Your task to perform on an android device: Open eBay Image 0: 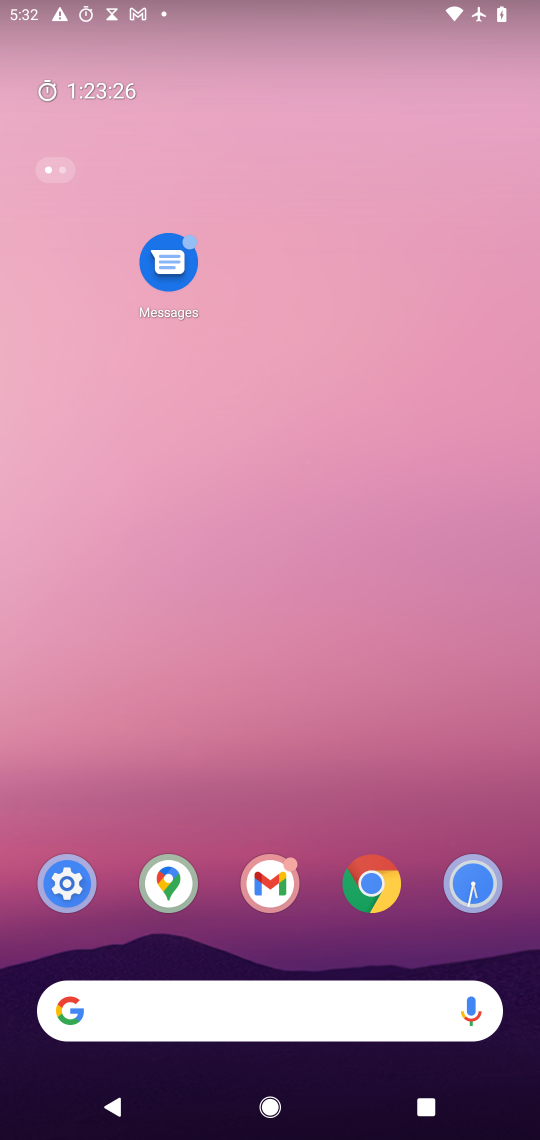
Step 0: click (376, 885)
Your task to perform on an android device: Open eBay Image 1: 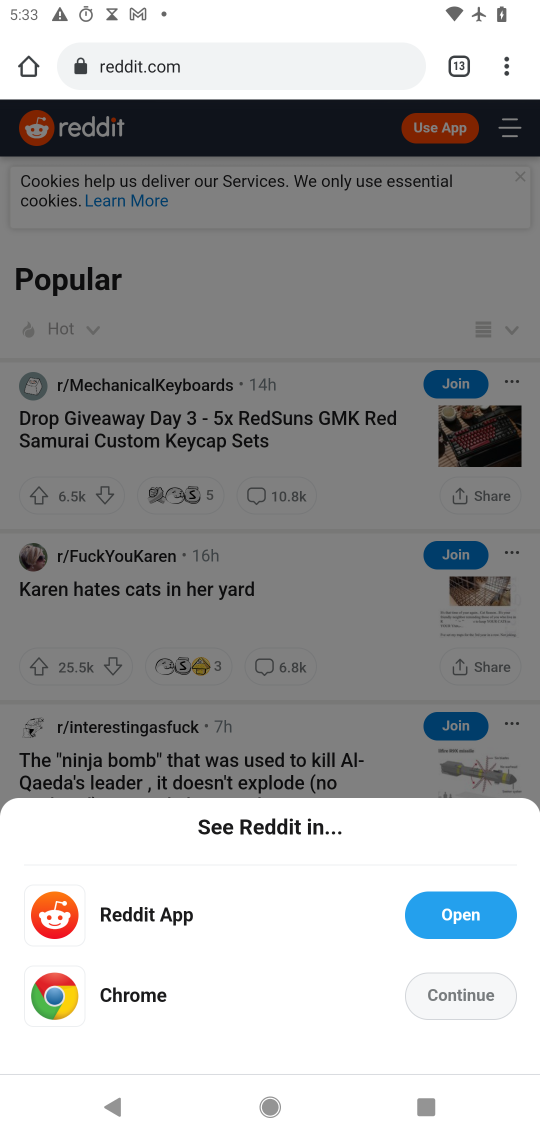
Step 1: click (507, 73)
Your task to perform on an android device: Open eBay Image 2: 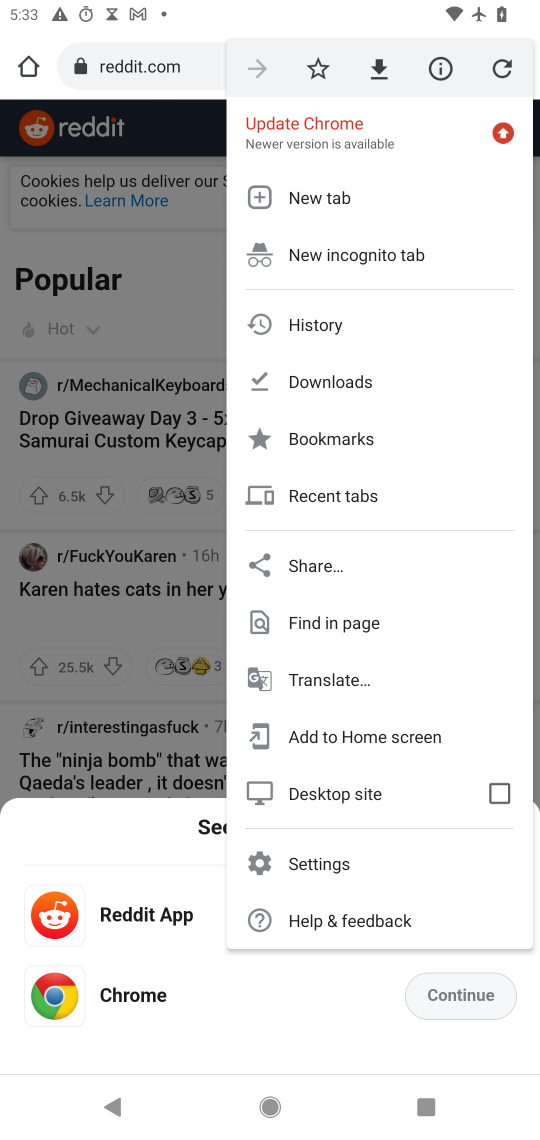
Step 2: click (315, 190)
Your task to perform on an android device: Open eBay Image 3: 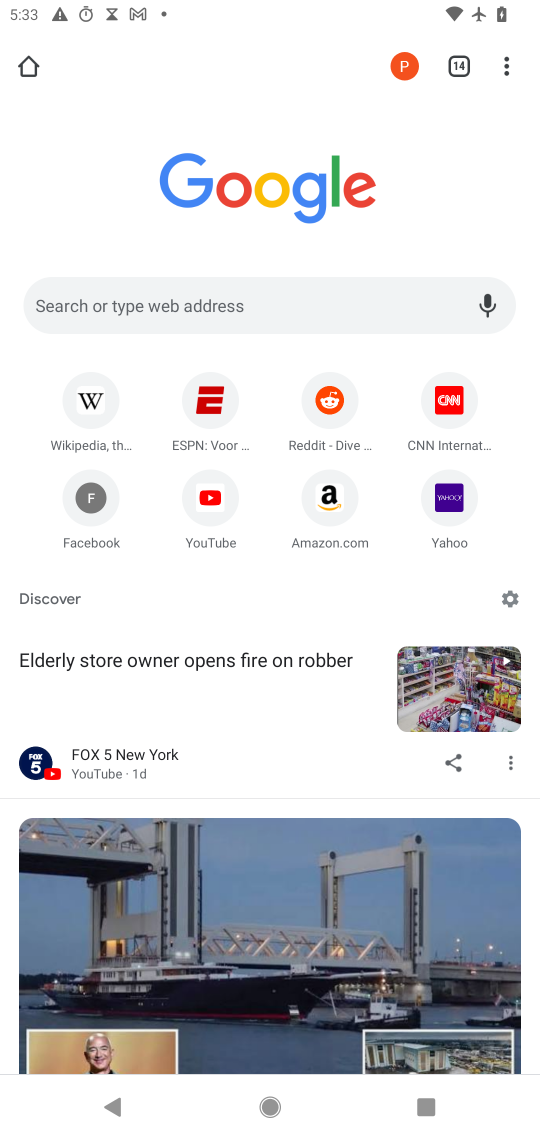
Step 3: click (283, 293)
Your task to perform on an android device: Open eBay Image 4: 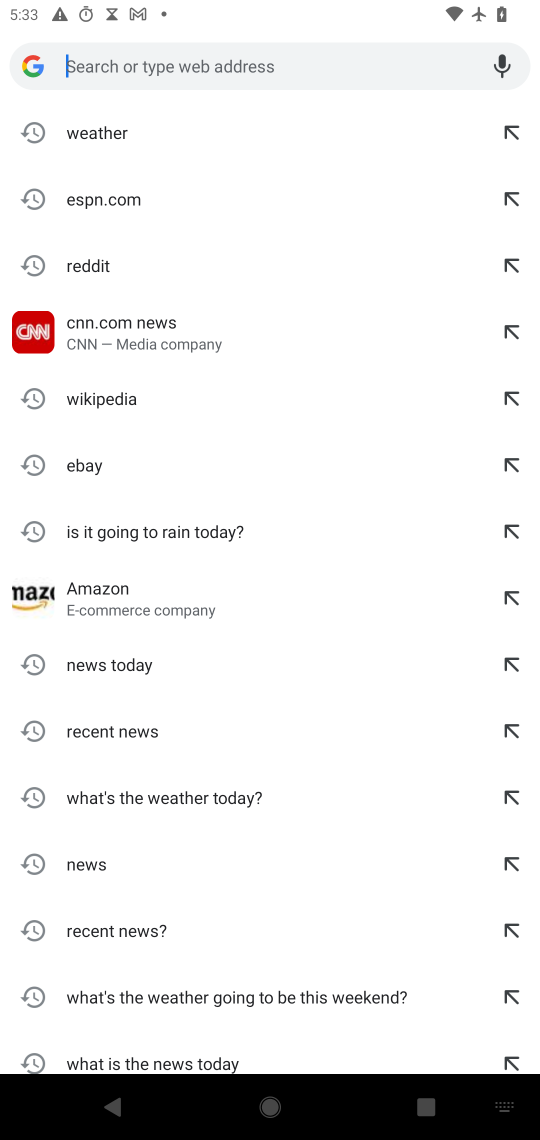
Step 4: type "eBay"
Your task to perform on an android device: Open eBay Image 5: 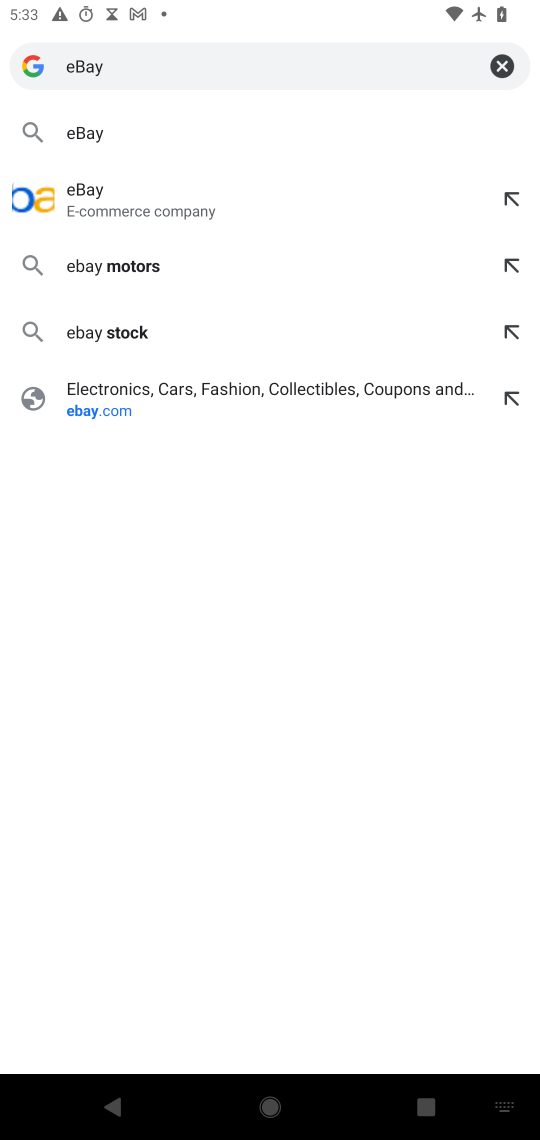
Step 5: click (79, 133)
Your task to perform on an android device: Open eBay Image 6: 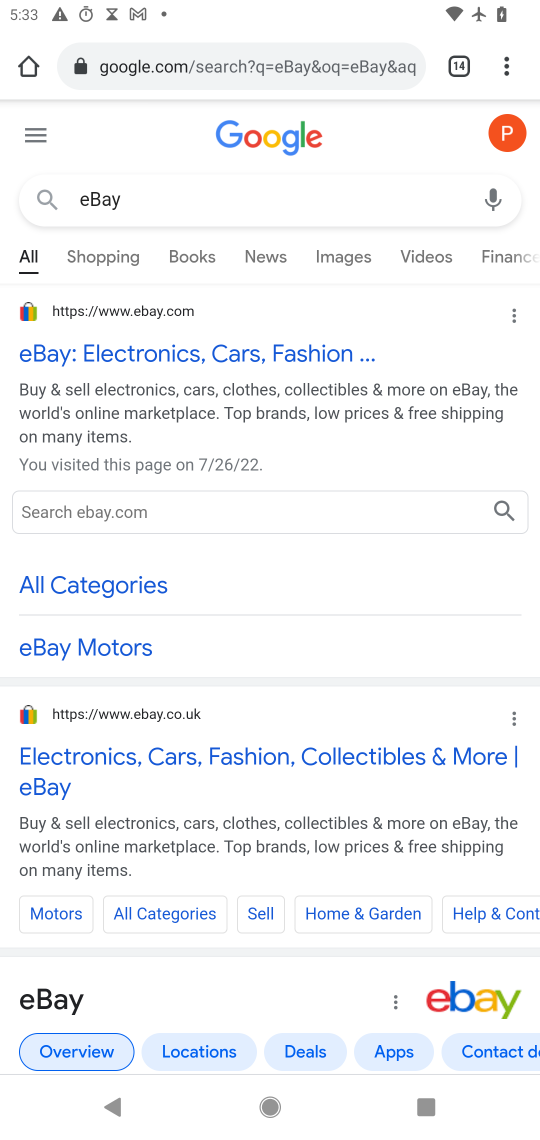
Step 6: click (163, 354)
Your task to perform on an android device: Open eBay Image 7: 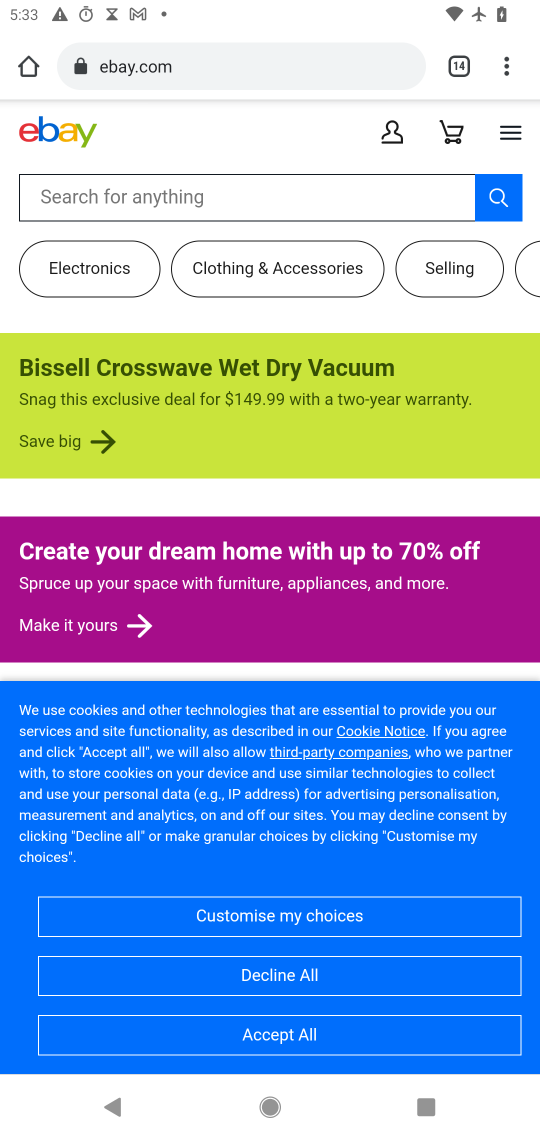
Step 7: task complete